Your task to perform on an android device: Do I have any events tomorrow? Image 0: 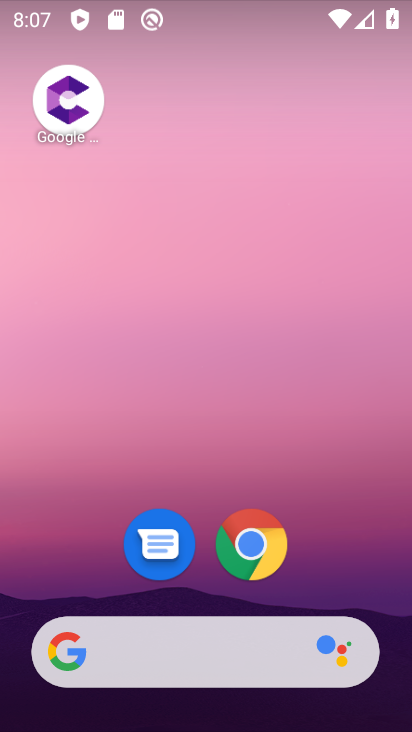
Step 0: drag from (350, 567) to (260, 19)
Your task to perform on an android device: Do I have any events tomorrow? Image 1: 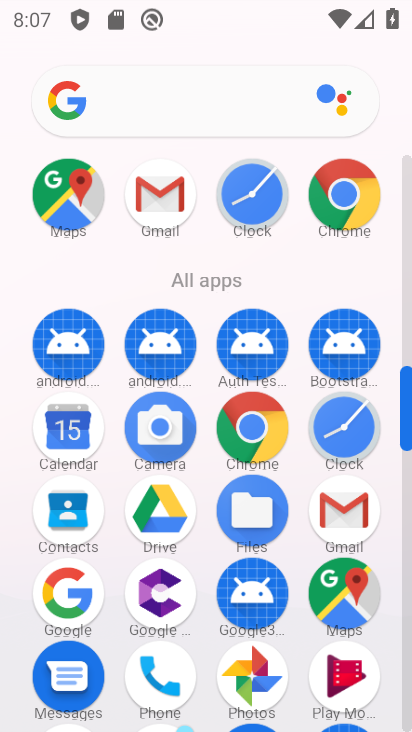
Step 1: click (83, 434)
Your task to perform on an android device: Do I have any events tomorrow? Image 2: 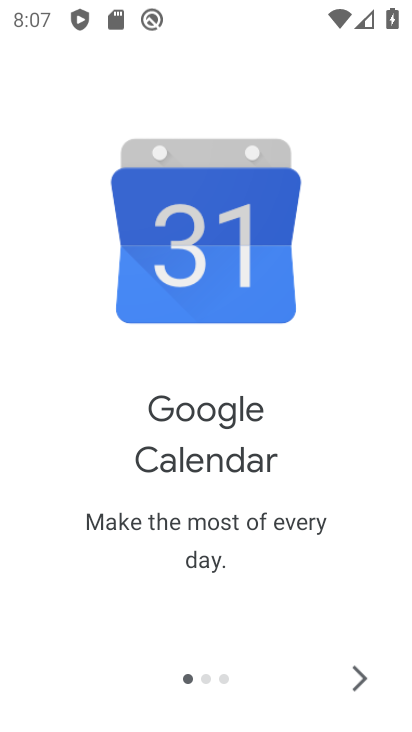
Step 2: click (360, 677)
Your task to perform on an android device: Do I have any events tomorrow? Image 3: 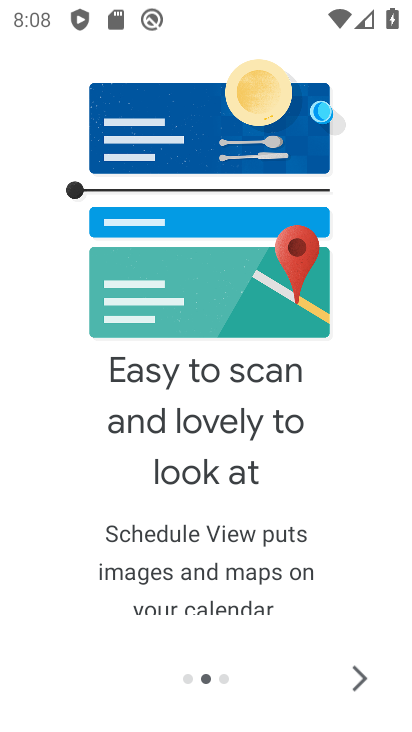
Step 3: click (359, 676)
Your task to perform on an android device: Do I have any events tomorrow? Image 4: 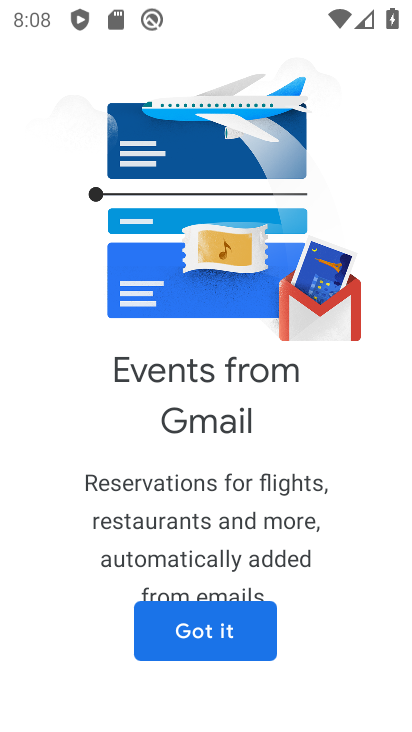
Step 4: click (188, 653)
Your task to perform on an android device: Do I have any events tomorrow? Image 5: 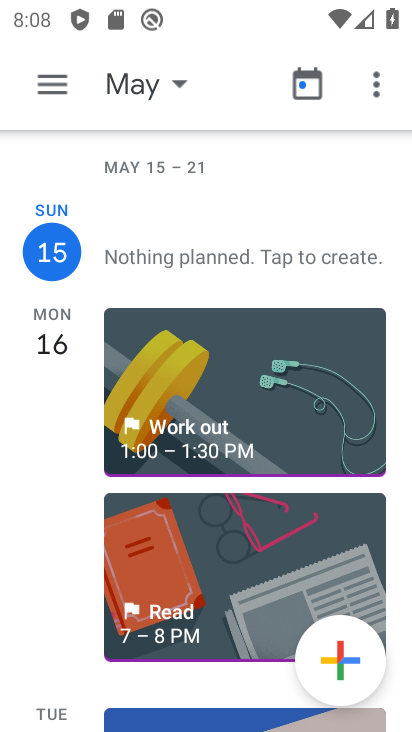
Step 5: click (56, 338)
Your task to perform on an android device: Do I have any events tomorrow? Image 6: 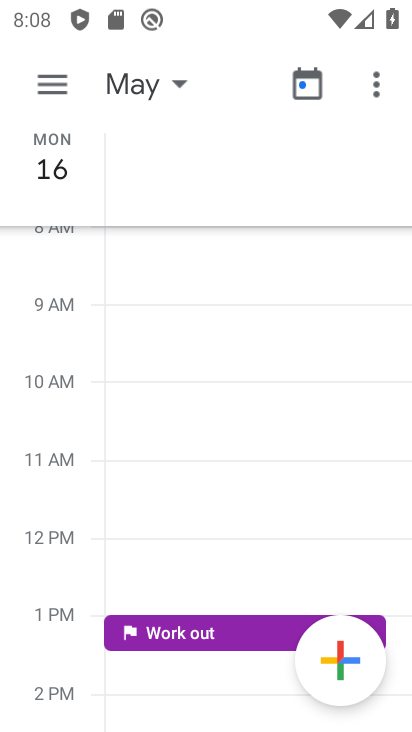
Step 6: task complete